Your task to perform on an android device: Go to notification settings Image 0: 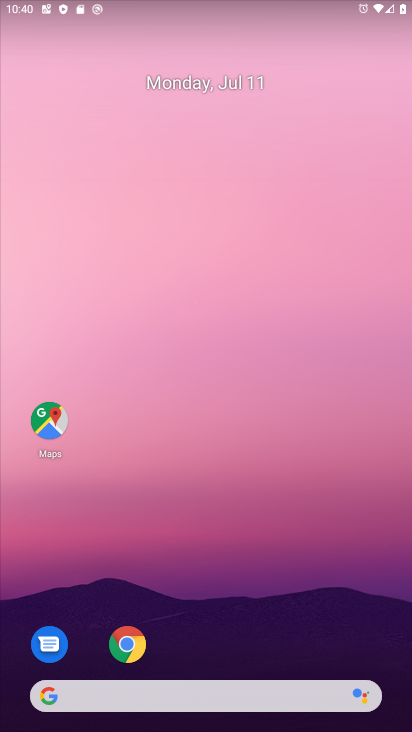
Step 0: press home button
Your task to perform on an android device: Go to notification settings Image 1: 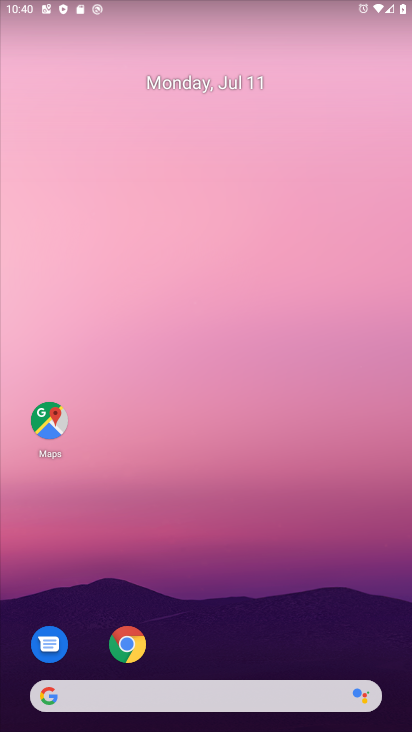
Step 1: drag from (212, 663) to (213, 11)
Your task to perform on an android device: Go to notification settings Image 2: 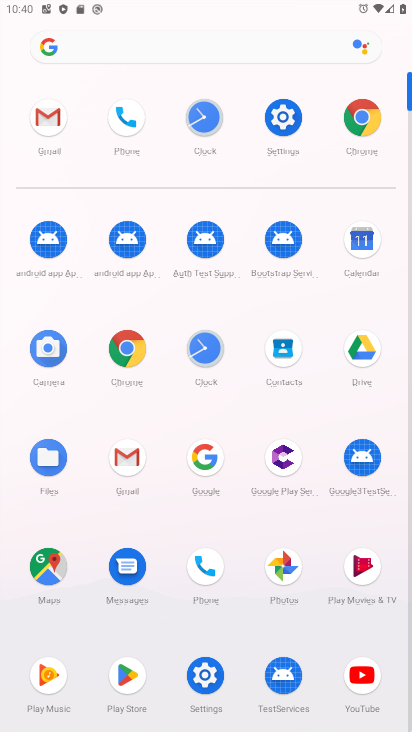
Step 2: click (281, 109)
Your task to perform on an android device: Go to notification settings Image 3: 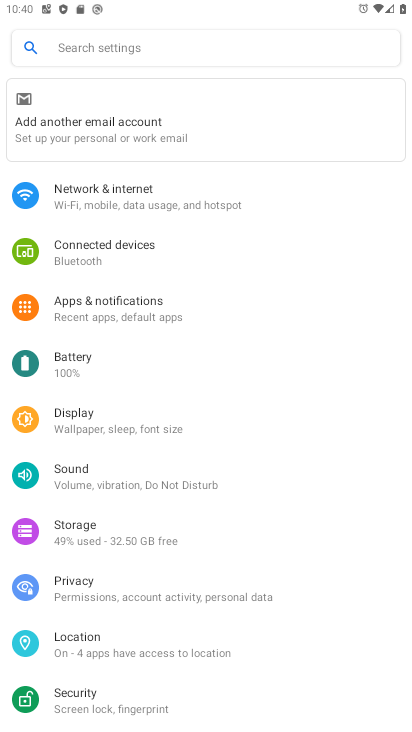
Step 3: click (189, 301)
Your task to perform on an android device: Go to notification settings Image 4: 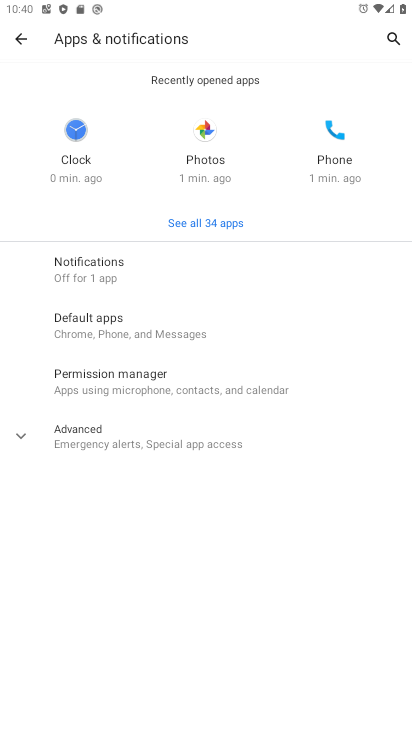
Step 4: click (158, 265)
Your task to perform on an android device: Go to notification settings Image 5: 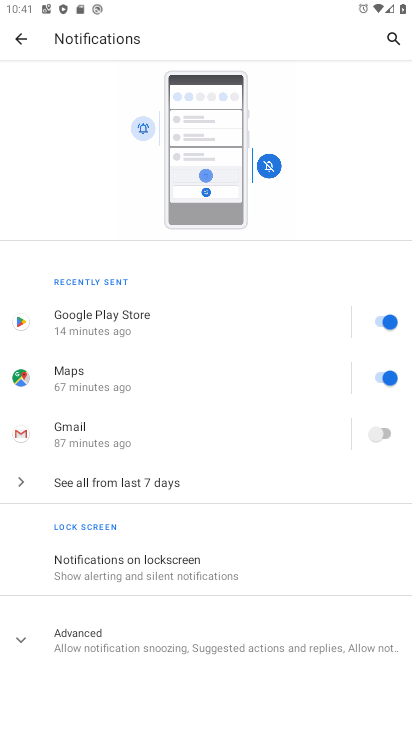
Step 5: click (24, 629)
Your task to perform on an android device: Go to notification settings Image 6: 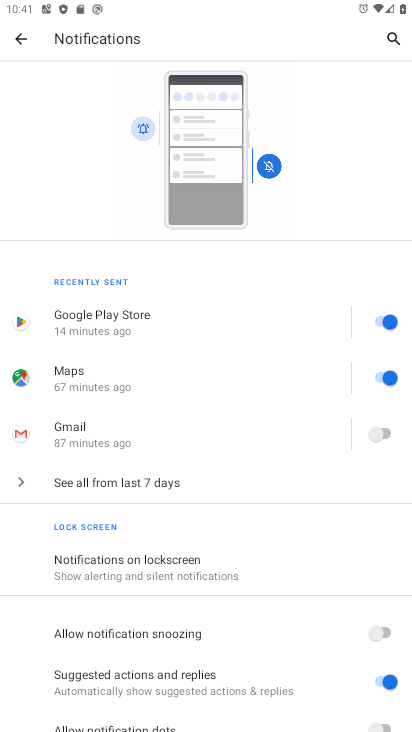
Step 6: task complete